Your task to perform on an android device: open wifi settings Image 0: 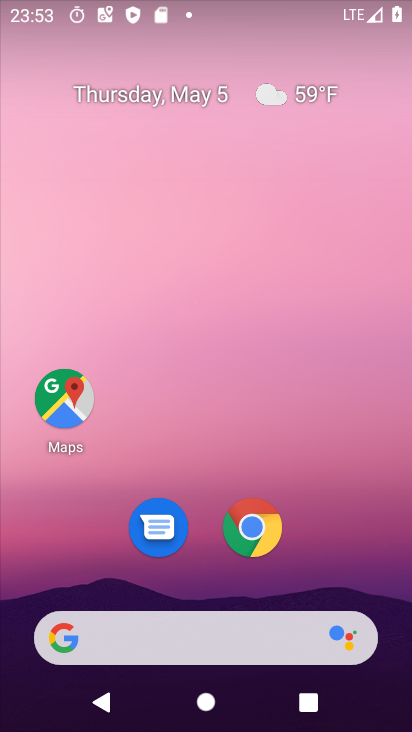
Step 0: drag from (209, 516) to (278, 17)
Your task to perform on an android device: open wifi settings Image 1: 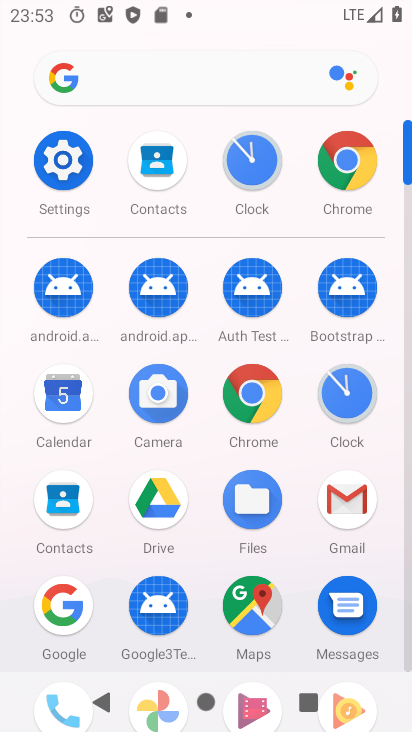
Step 1: click (70, 203)
Your task to perform on an android device: open wifi settings Image 2: 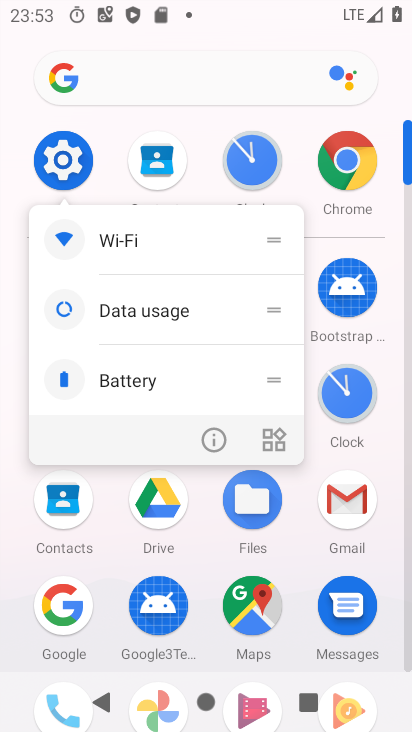
Step 2: click (120, 239)
Your task to perform on an android device: open wifi settings Image 3: 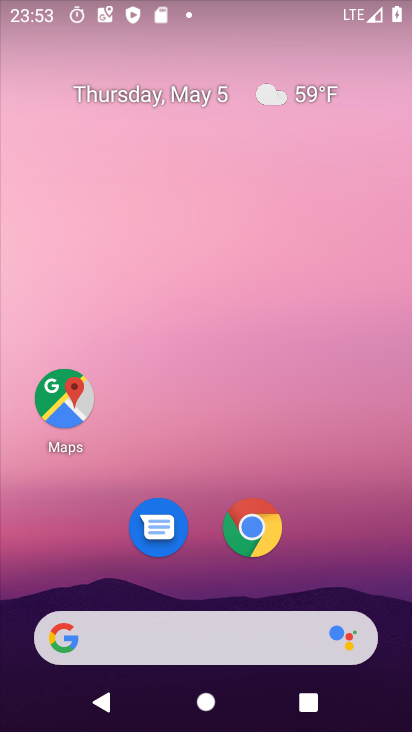
Step 3: drag from (246, 601) to (6, 124)
Your task to perform on an android device: open wifi settings Image 4: 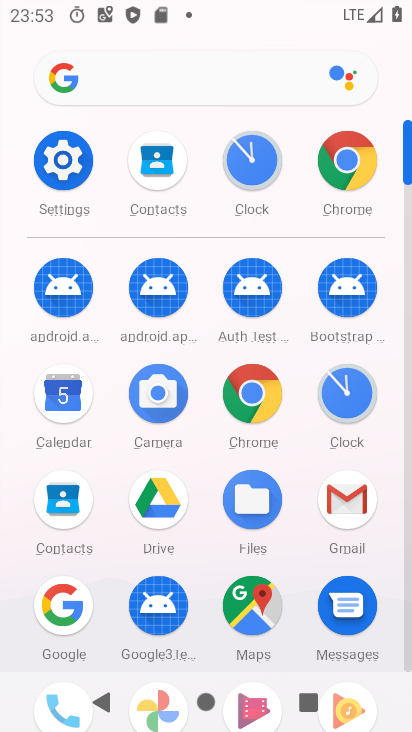
Step 4: click (59, 177)
Your task to perform on an android device: open wifi settings Image 5: 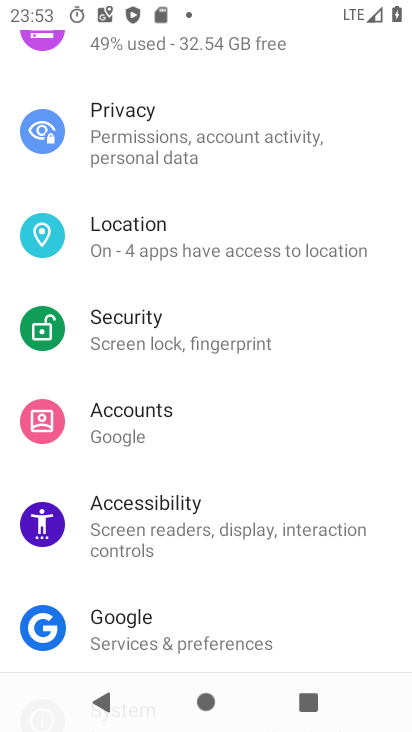
Step 5: drag from (143, 143) to (188, 686)
Your task to perform on an android device: open wifi settings Image 6: 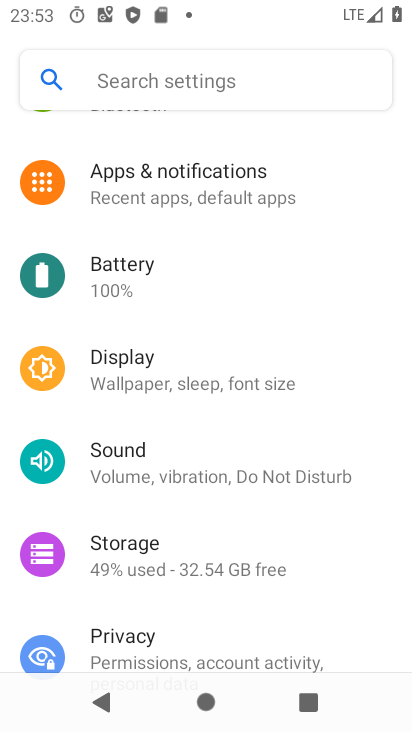
Step 6: drag from (240, 260) to (261, 722)
Your task to perform on an android device: open wifi settings Image 7: 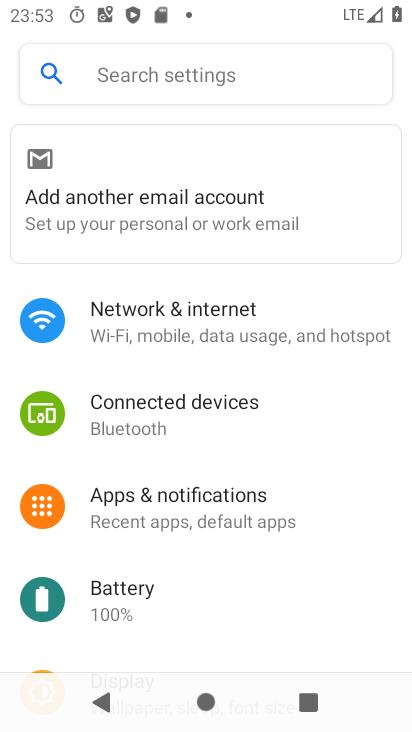
Step 7: click (195, 339)
Your task to perform on an android device: open wifi settings Image 8: 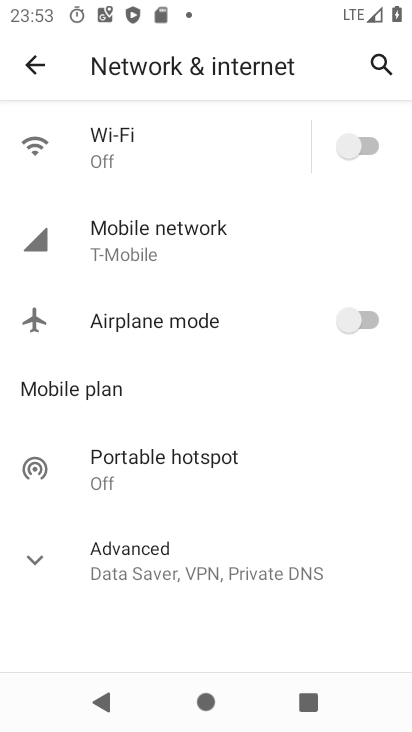
Step 8: click (139, 154)
Your task to perform on an android device: open wifi settings Image 9: 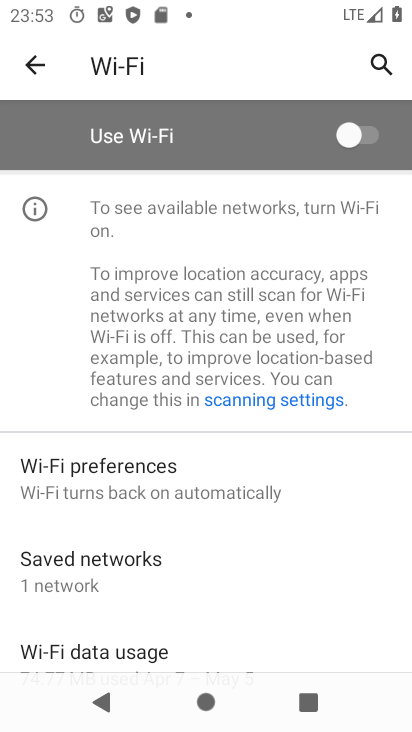
Step 9: task complete